Your task to perform on an android device: turn pop-ups on in chrome Image 0: 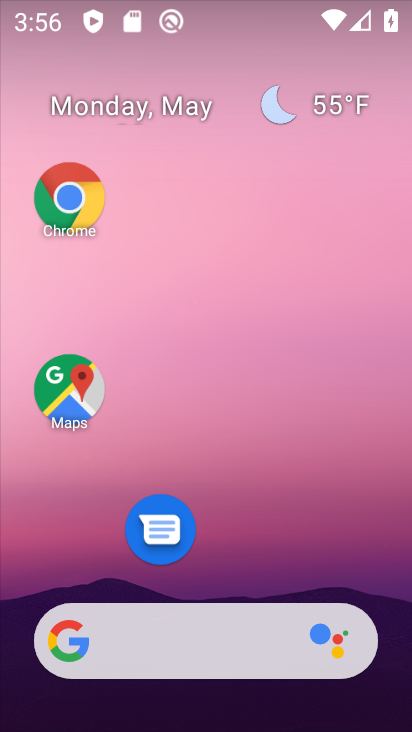
Step 0: click (70, 227)
Your task to perform on an android device: turn pop-ups on in chrome Image 1: 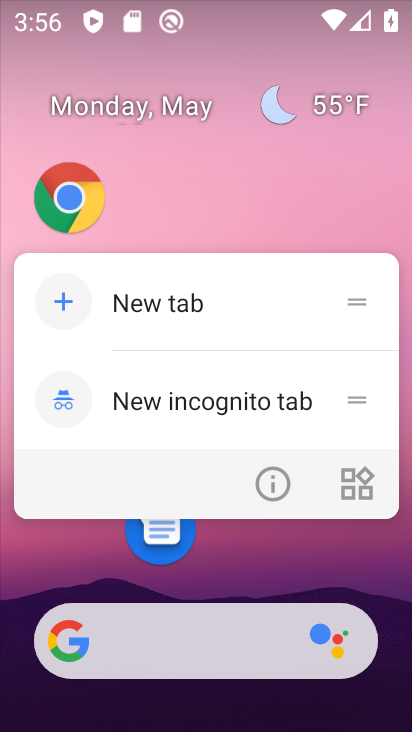
Step 1: click (86, 207)
Your task to perform on an android device: turn pop-ups on in chrome Image 2: 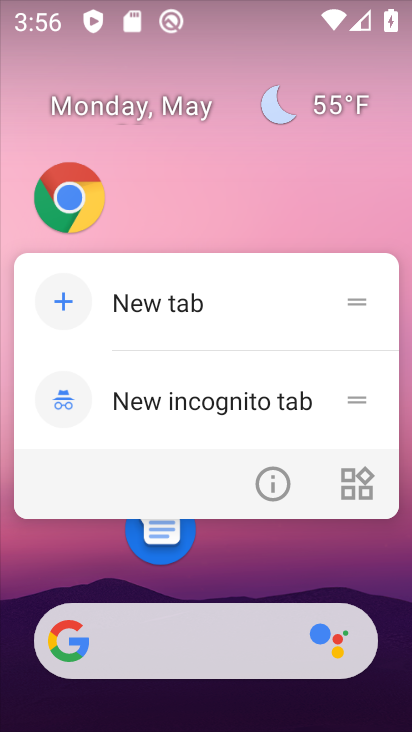
Step 2: click (74, 198)
Your task to perform on an android device: turn pop-ups on in chrome Image 3: 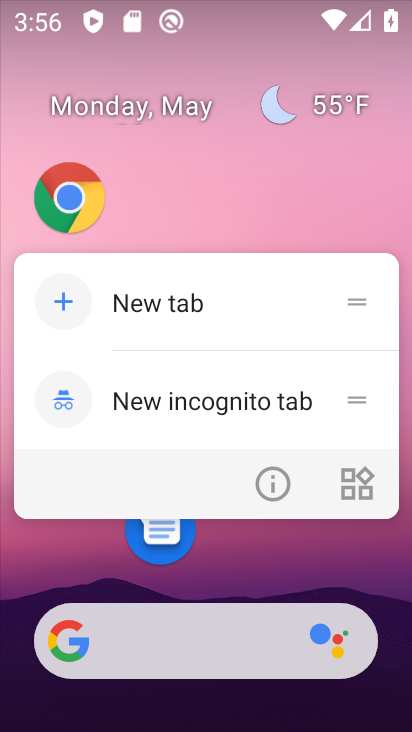
Step 3: click (56, 200)
Your task to perform on an android device: turn pop-ups on in chrome Image 4: 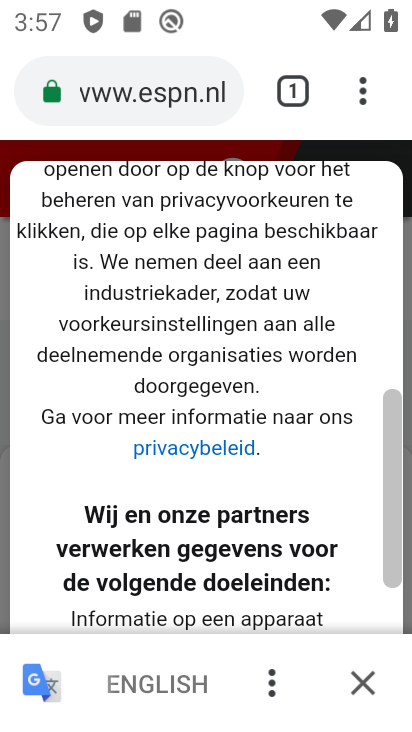
Step 4: click (365, 87)
Your task to perform on an android device: turn pop-ups on in chrome Image 5: 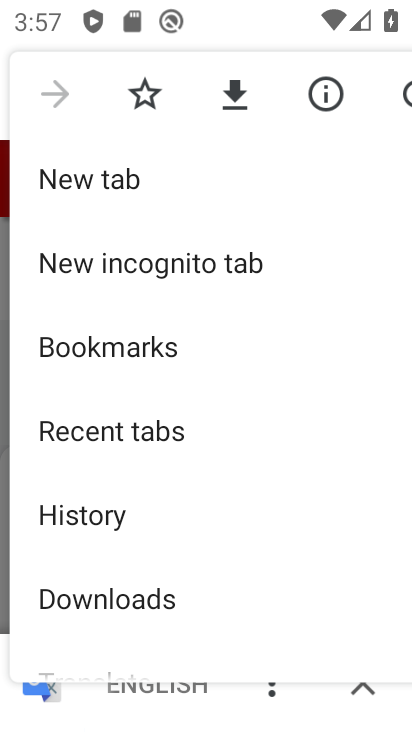
Step 5: drag from (124, 601) to (142, 296)
Your task to perform on an android device: turn pop-ups on in chrome Image 6: 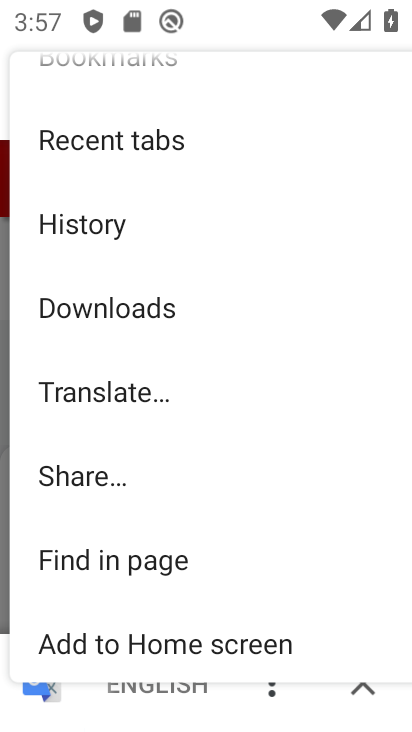
Step 6: drag from (93, 524) to (92, 338)
Your task to perform on an android device: turn pop-ups on in chrome Image 7: 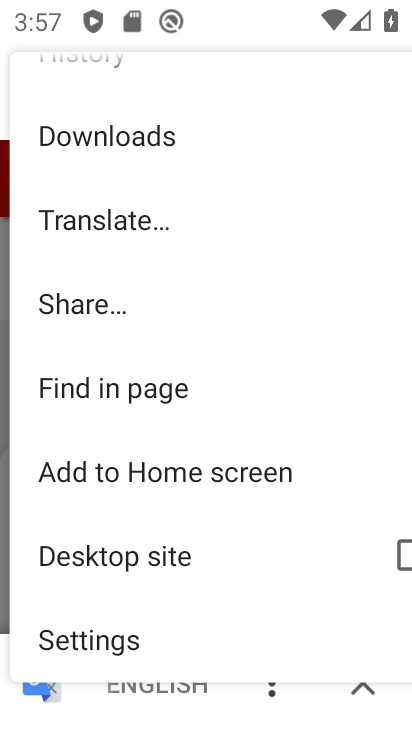
Step 7: click (80, 642)
Your task to perform on an android device: turn pop-ups on in chrome Image 8: 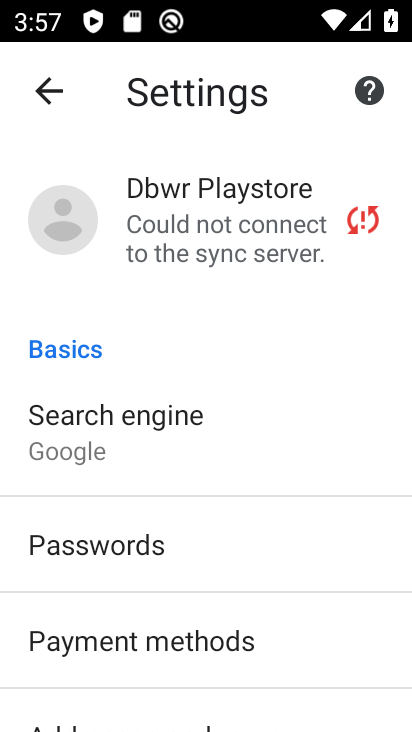
Step 8: drag from (139, 643) to (170, 252)
Your task to perform on an android device: turn pop-ups on in chrome Image 9: 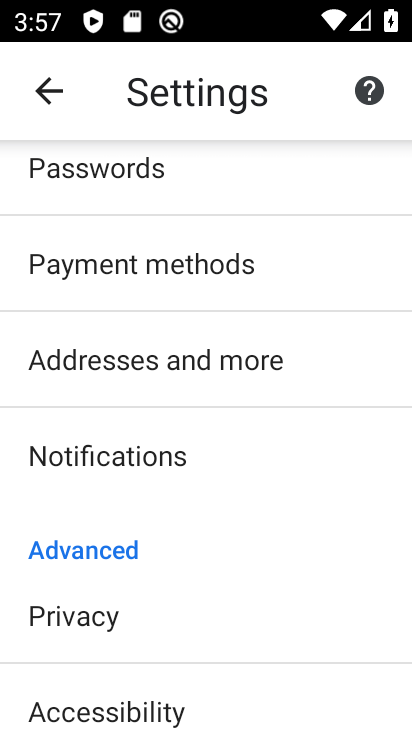
Step 9: drag from (114, 640) to (183, 156)
Your task to perform on an android device: turn pop-ups on in chrome Image 10: 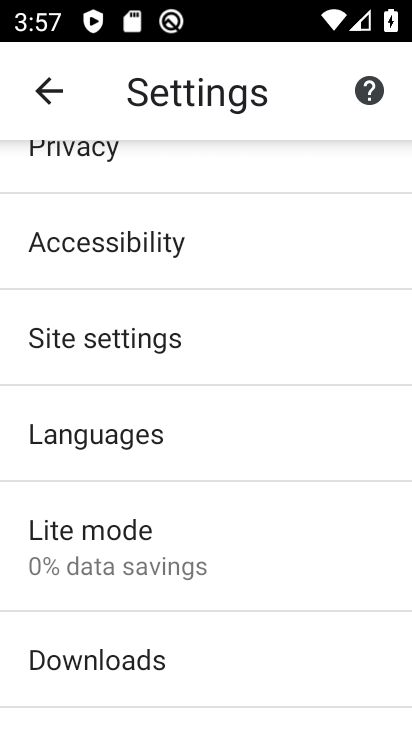
Step 10: click (168, 350)
Your task to perform on an android device: turn pop-ups on in chrome Image 11: 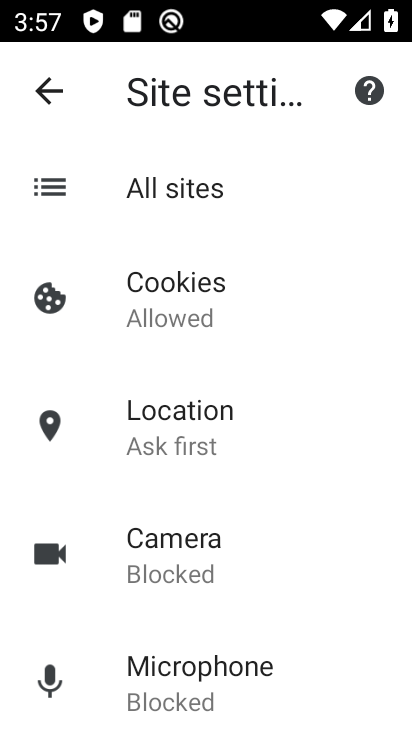
Step 11: drag from (123, 624) to (158, 377)
Your task to perform on an android device: turn pop-ups on in chrome Image 12: 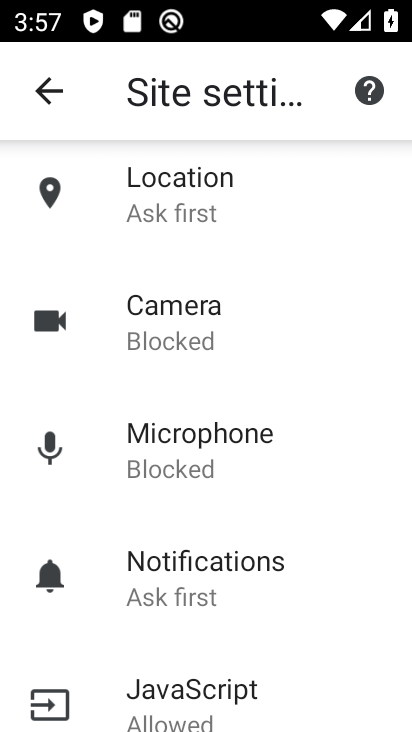
Step 12: drag from (249, 560) to (296, 274)
Your task to perform on an android device: turn pop-ups on in chrome Image 13: 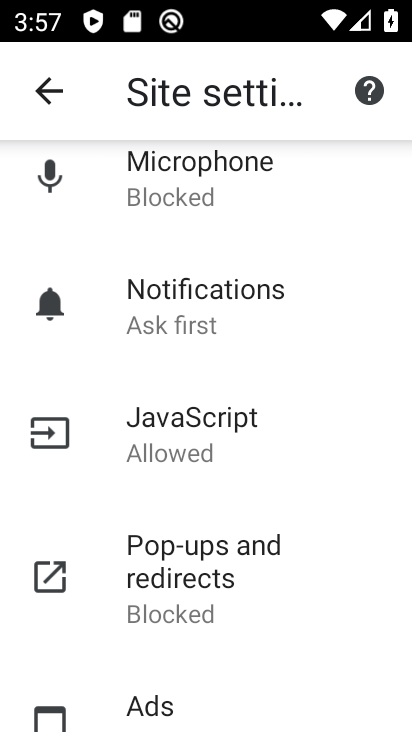
Step 13: click (211, 594)
Your task to perform on an android device: turn pop-ups on in chrome Image 14: 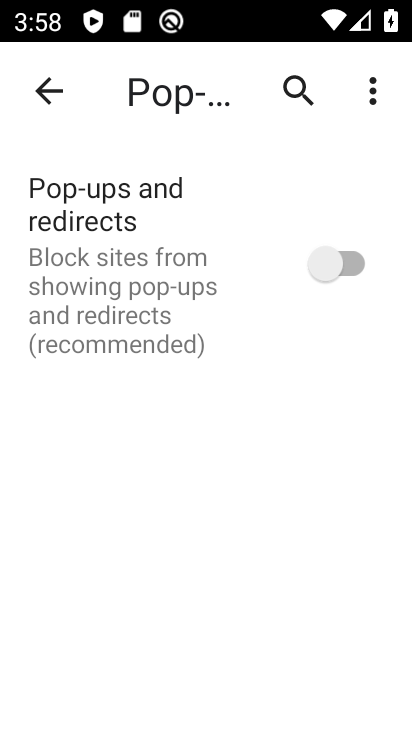
Step 14: click (351, 270)
Your task to perform on an android device: turn pop-ups on in chrome Image 15: 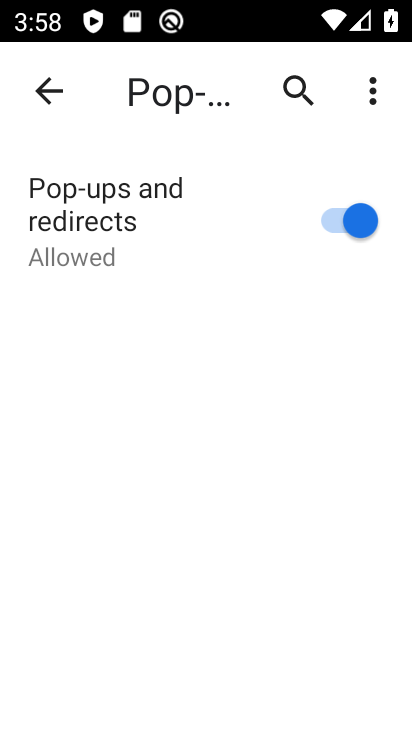
Step 15: task complete